Your task to perform on an android device: add a label to a message in the gmail app Image 0: 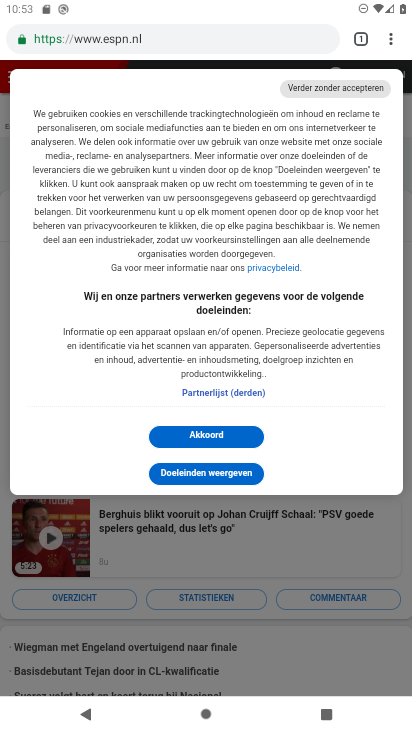
Step 0: press home button
Your task to perform on an android device: add a label to a message in the gmail app Image 1: 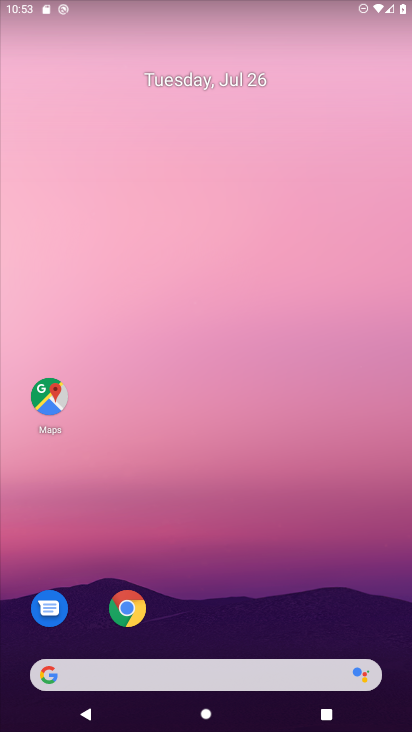
Step 1: drag from (310, 572) to (302, 92)
Your task to perform on an android device: add a label to a message in the gmail app Image 2: 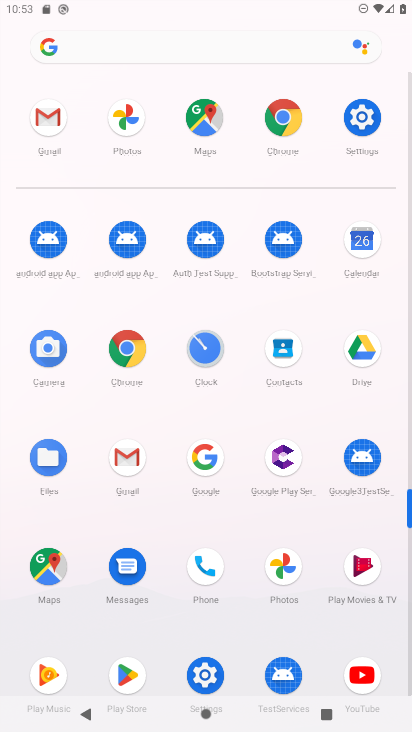
Step 2: click (49, 115)
Your task to perform on an android device: add a label to a message in the gmail app Image 3: 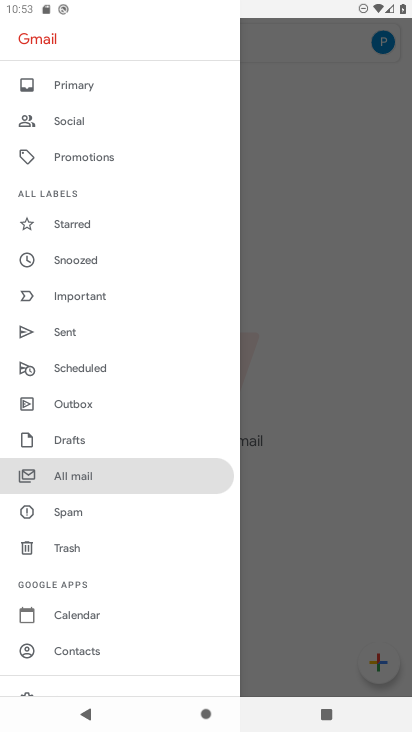
Step 3: click (322, 407)
Your task to perform on an android device: add a label to a message in the gmail app Image 4: 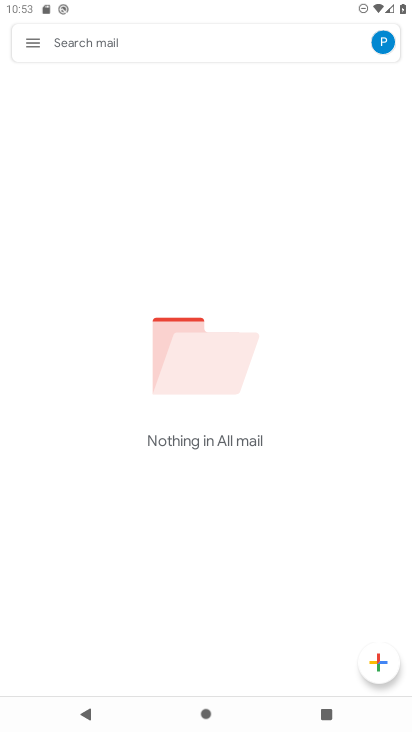
Step 4: task complete